Your task to perform on an android device: toggle show notifications on the lock screen Image 0: 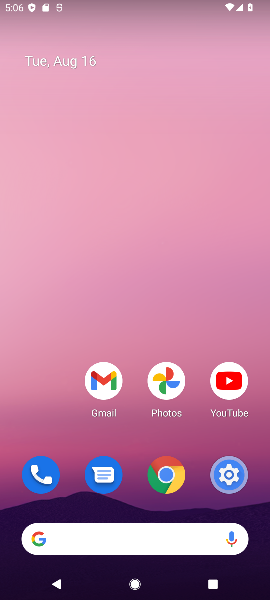
Step 0: drag from (69, 464) to (53, 48)
Your task to perform on an android device: toggle show notifications on the lock screen Image 1: 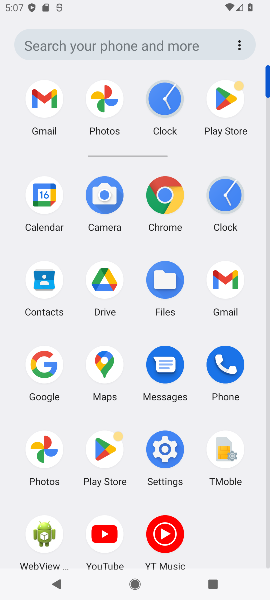
Step 1: click (170, 446)
Your task to perform on an android device: toggle show notifications on the lock screen Image 2: 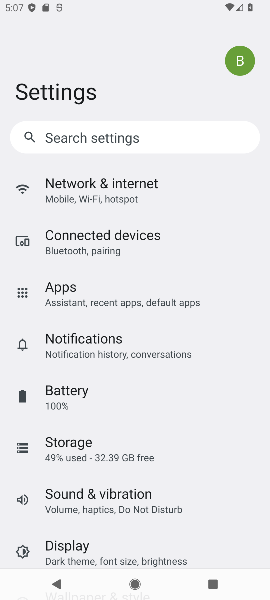
Step 2: click (114, 354)
Your task to perform on an android device: toggle show notifications on the lock screen Image 3: 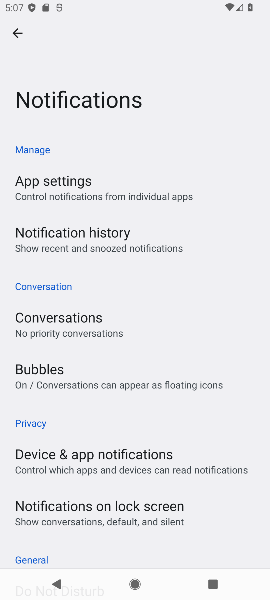
Step 3: task complete